Your task to perform on an android device: turn on translation in the chrome app Image 0: 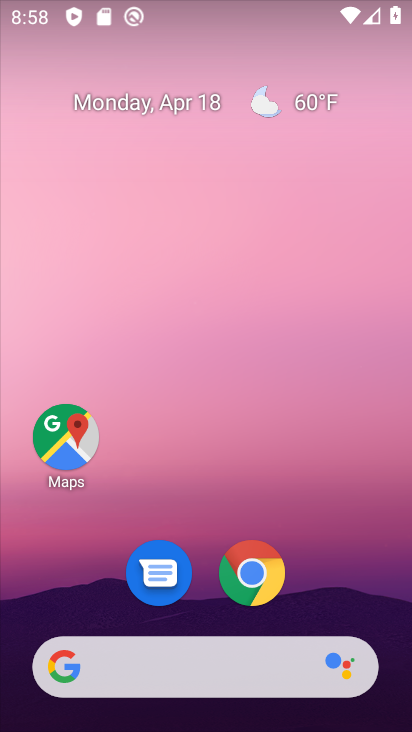
Step 0: click (246, 573)
Your task to perform on an android device: turn on translation in the chrome app Image 1: 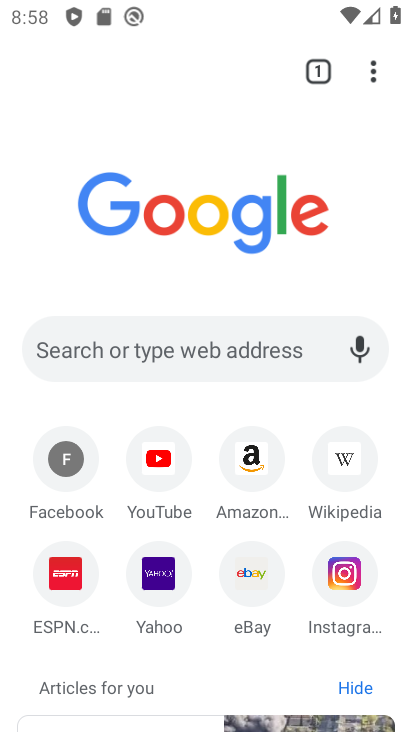
Step 1: click (370, 71)
Your task to perform on an android device: turn on translation in the chrome app Image 2: 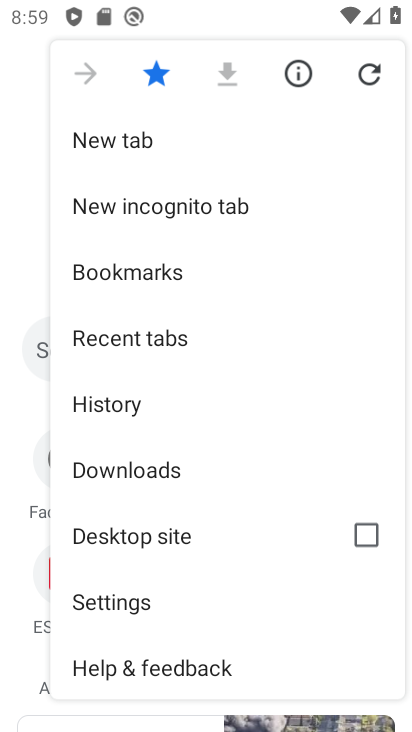
Step 2: click (125, 598)
Your task to perform on an android device: turn on translation in the chrome app Image 3: 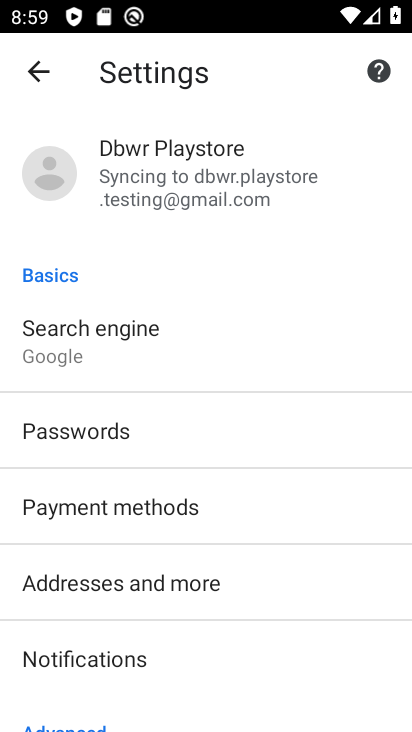
Step 3: drag from (195, 618) to (201, 152)
Your task to perform on an android device: turn on translation in the chrome app Image 4: 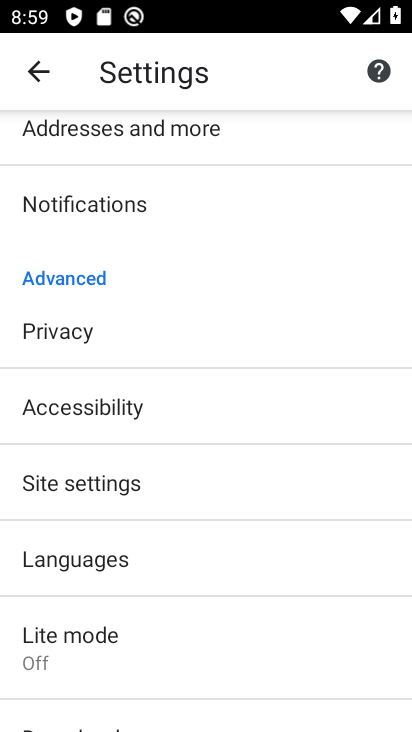
Step 4: click (60, 560)
Your task to perform on an android device: turn on translation in the chrome app Image 5: 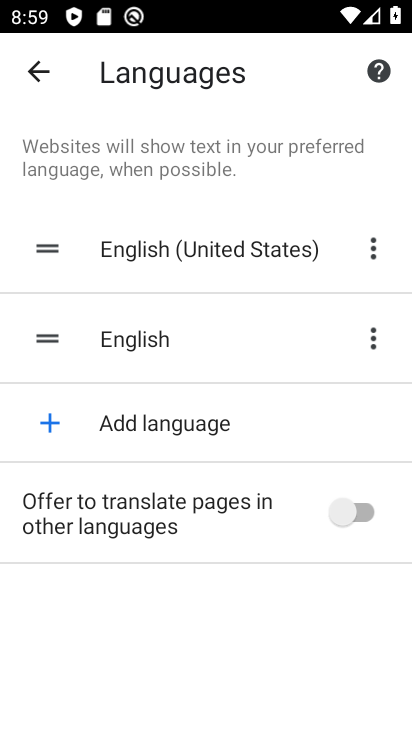
Step 5: click (359, 513)
Your task to perform on an android device: turn on translation in the chrome app Image 6: 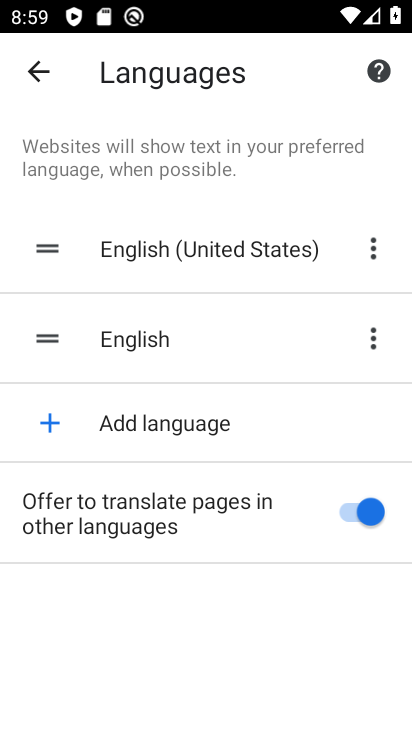
Step 6: task complete